Your task to perform on an android device: change notification settings in the gmail app Image 0: 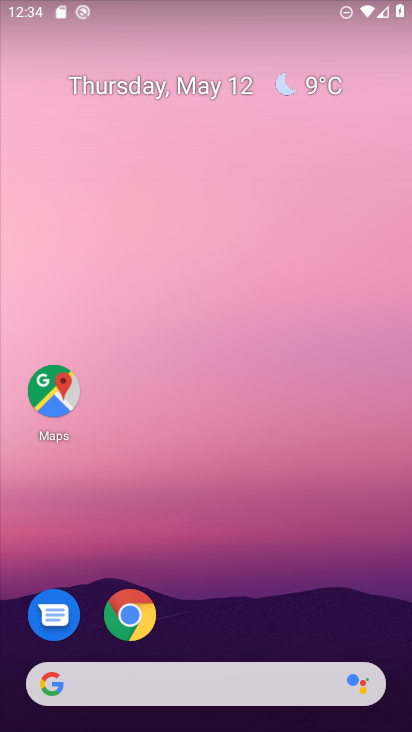
Step 0: drag from (245, 524) to (160, 66)
Your task to perform on an android device: change notification settings in the gmail app Image 1: 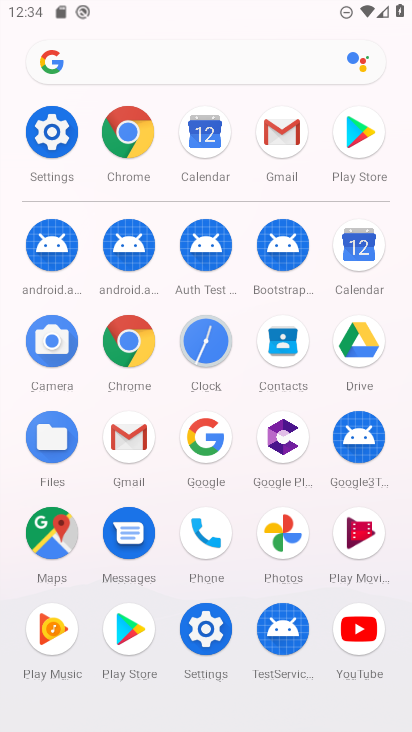
Step 1: click (266, 136)
Your task to perform on an android device: change notification settings in the gmail app Image 2: 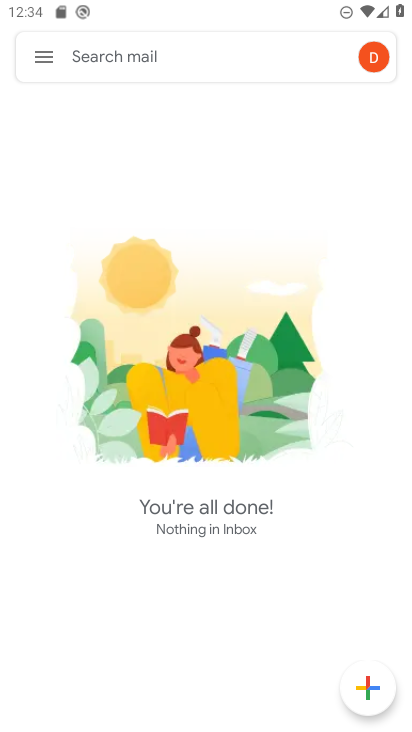
Step 2: click (46, 54)
Your task to perform on an android device: change notification settings in the gmail app Image 3: 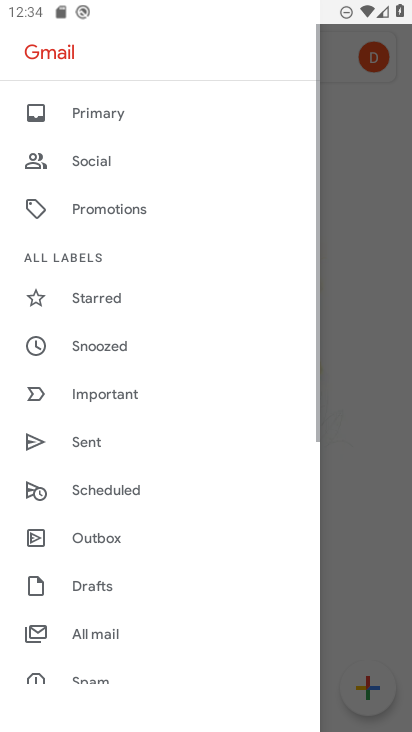
Step 3: drag from (116, 652) to (117, 220)
Your task to perform on an android device: change notification settings in the gmail app Image 4: 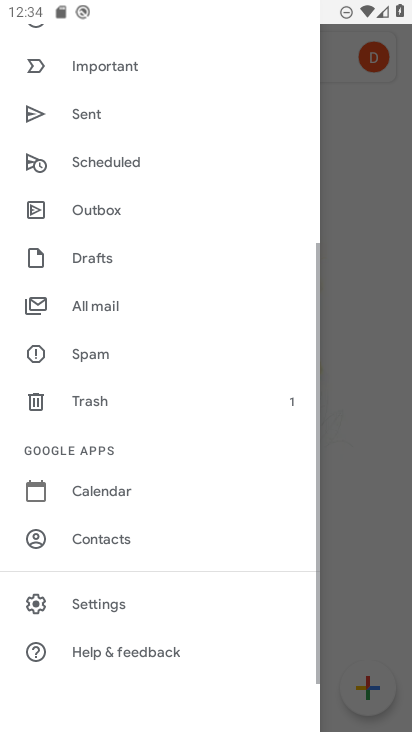
Step 4: click (86, 616)
Your task to perform on an android device: change notification settings in the gmail app Image 5: 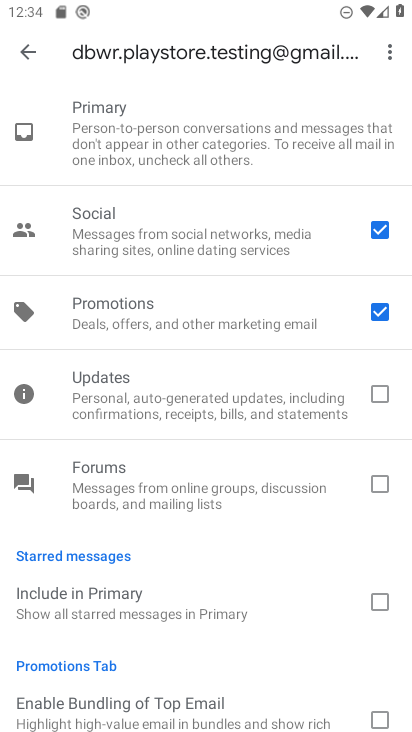
Step 5: drag from (260, 592) to (216, 201)
Your task to perform on an android device: change notification settings in the gmail app Image 6: 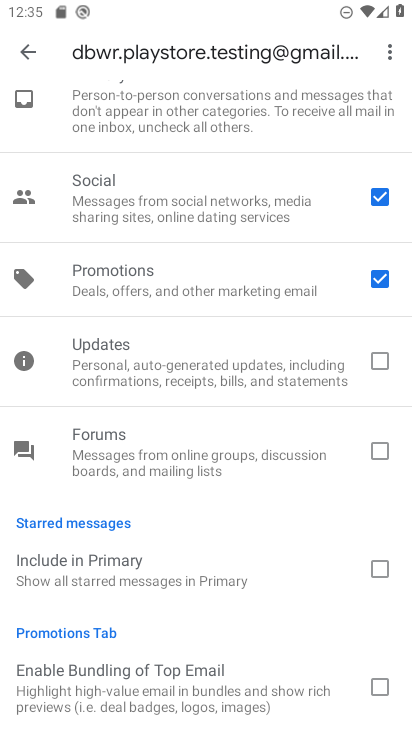
Step 6: drag from (208, 537) to (235, 212)
Your task to perform on an android device: change notification settings in the gmail app Image 7: 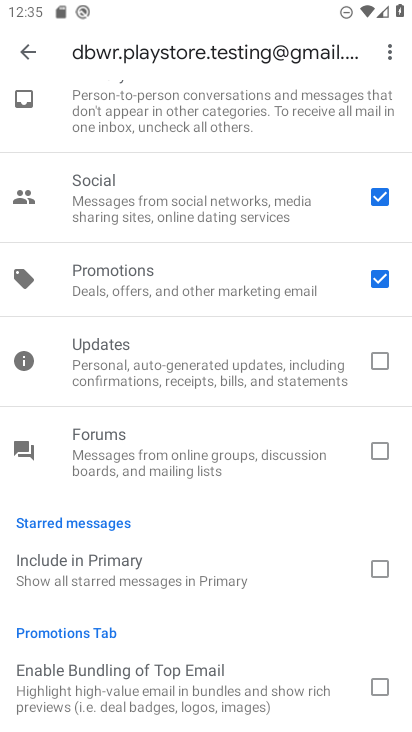
Step 7: drag from (228, 263) to (236, 707)
Your task to perform on an android device: change notification settings in the gmail app Image 8: 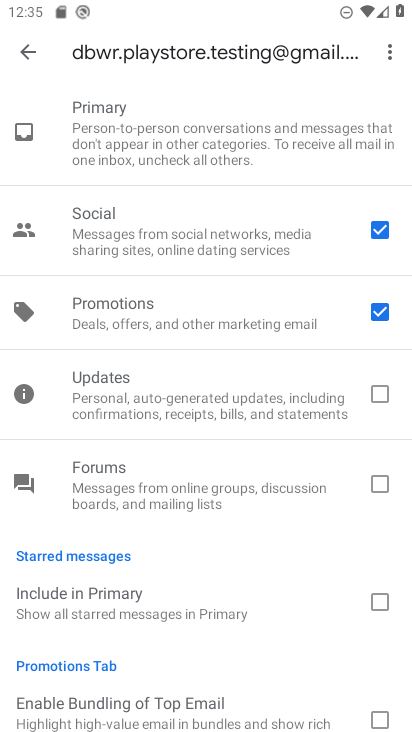
Step 8: drag from (210, 278) to (205, 514)
Your task to perform on an android device: change notification settings in the gmail app Image 9: 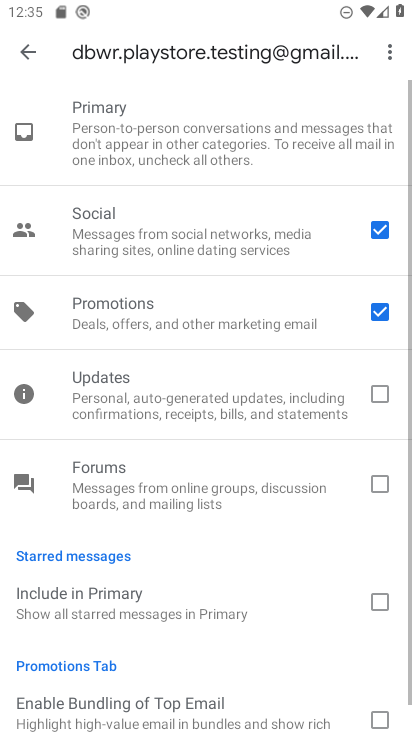
Step 9: click (21, 54)
Your task to perform on an android device: change notification settings in the gmail app Image 10: 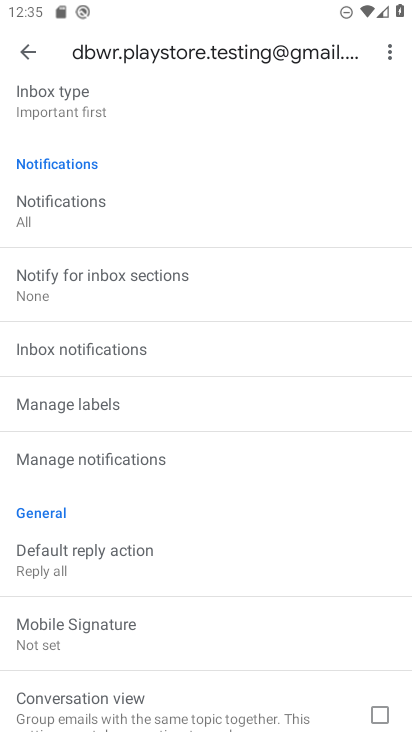
Step 10: click (115, 476)
Your task to perform on an android device: change notification settings in the gmail app Image 11: 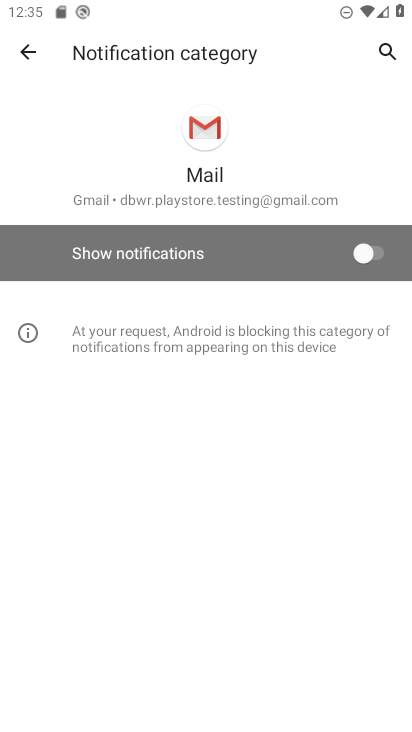
Step 11: click (327, 254)
Your task to perform on an android device: change notification settings in the gmail app Image 12: 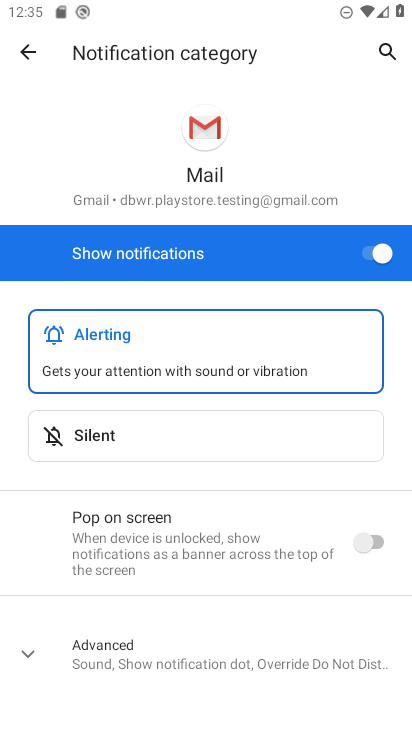
Step 12: task complete